Your task to perform on an android device: turn off data saver in the chrome app Image 0: 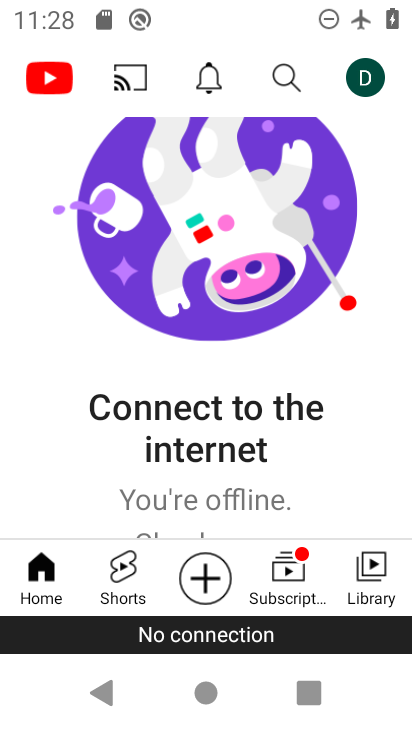
Step 0: drag from (263, 442) to (293, 267)
Your task to perform on an android device: turn off data saver in the chrome app Image 1: 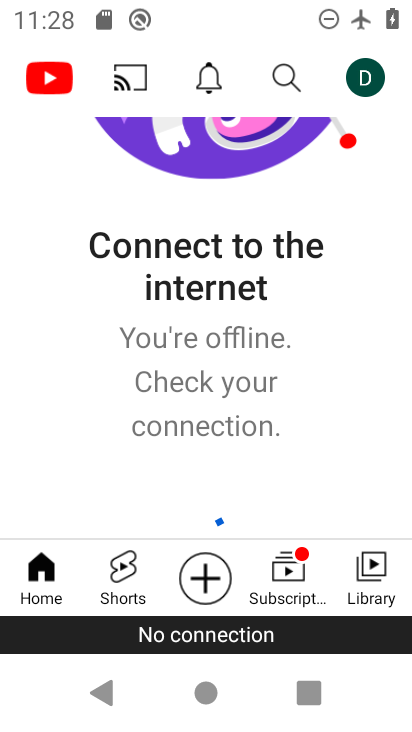
Step 1: click (311, 350)
Your task to perform on an android device: turn off data saver in the chrome app Image 2: 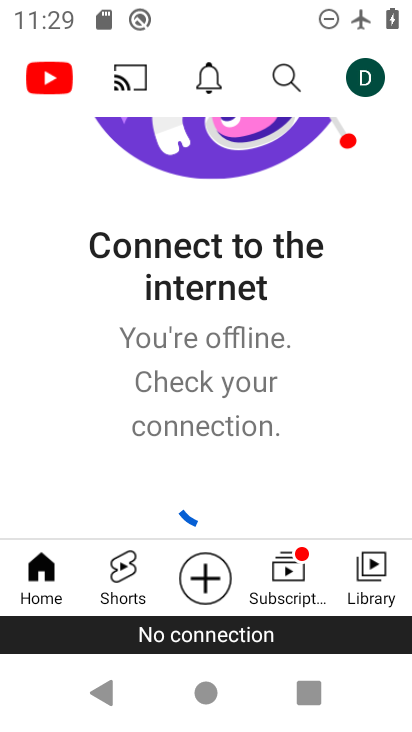
Step 2: press home button
Your task to perform on an android device: turn off data saver in the chrome app Image 3: 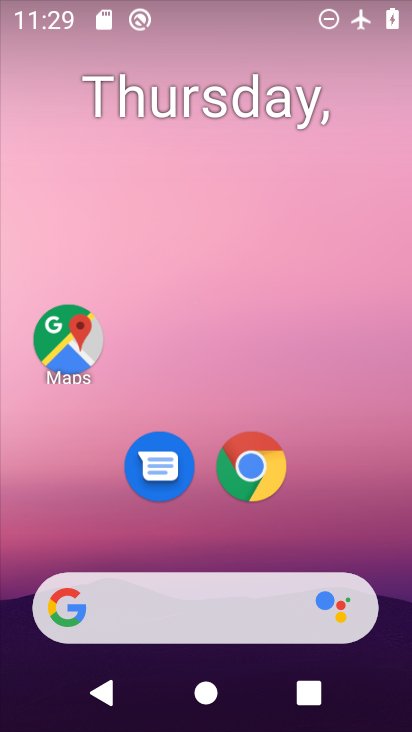
Step 3: drag from (173, 565) to (165, 0)
Your task to perform on an android device: turn off data saver in the chrome app Image 4: 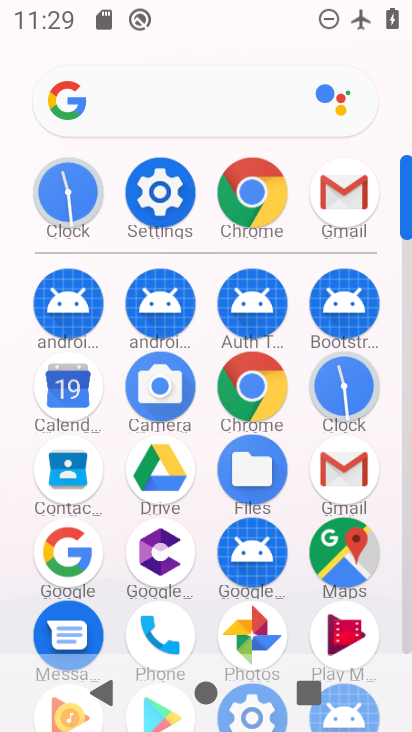
Step 4: click (246, 390)
Your task to perform on an android device: turn off data saver in the chrome app Image 5: 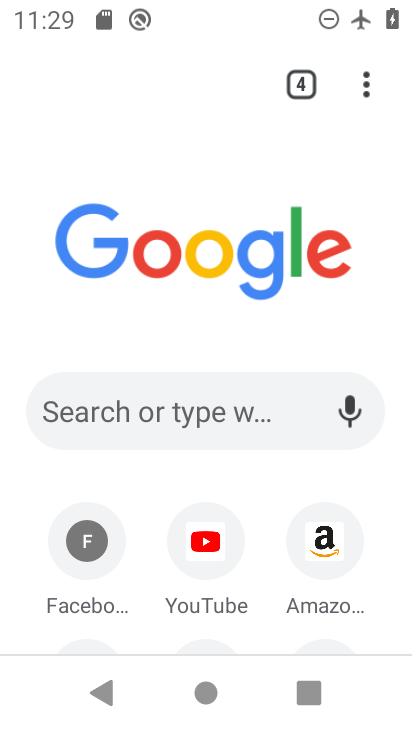
Step 5: drag from (369, 77) to (141, 508)
Your task to perform on an android device: turn off data saver in the chrome app Image 6: 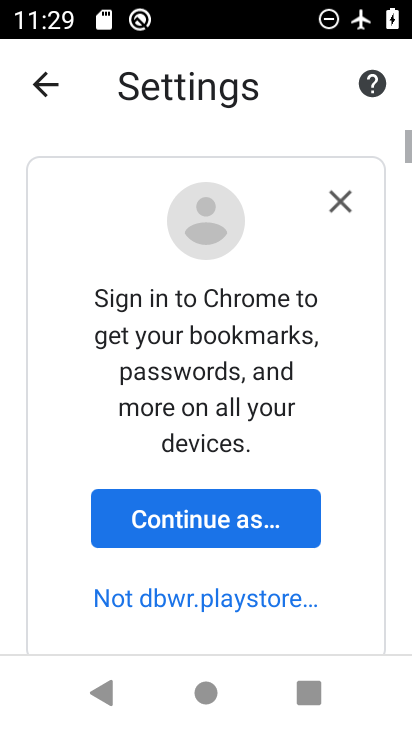
Step 6: drag from (176, 594) to (270, 154)
Your task to perform on an android device: turn off data saver in the chrome app Image 7: 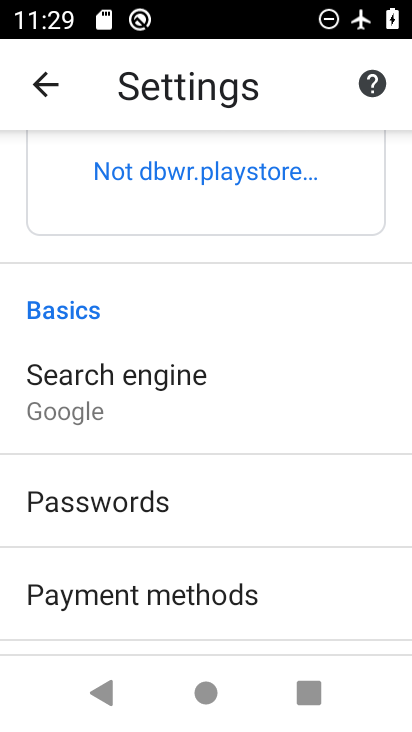
Step 7: drag from (186, 654) to (180, 244)
Your task to perform on an android device: turn off data saver in the chrome app Image 8: 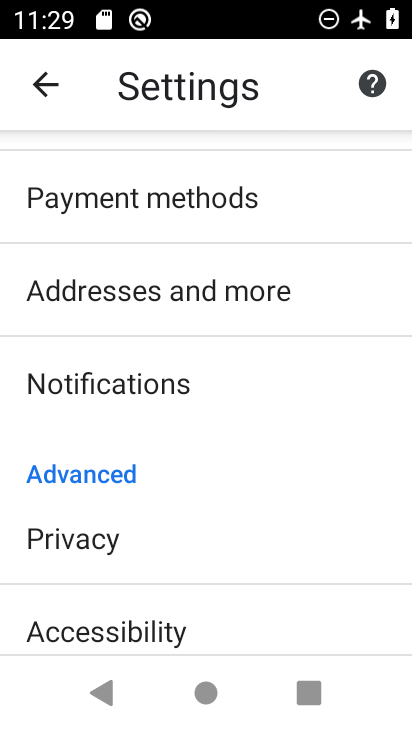
Step 8: drag from (224, 576) to (181, 294)
Your task to perform on an android device: turn off data saver in the chrome app Image 9: 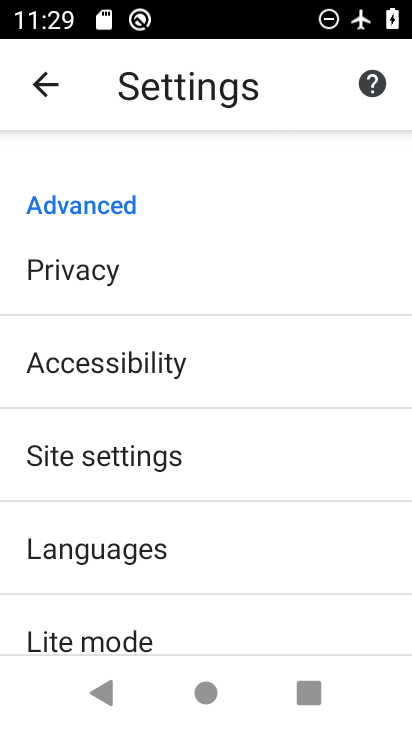
Step 9: click (187, 476)
Your task to perform on an android device: turn off data saver in the chrome app Image 10: 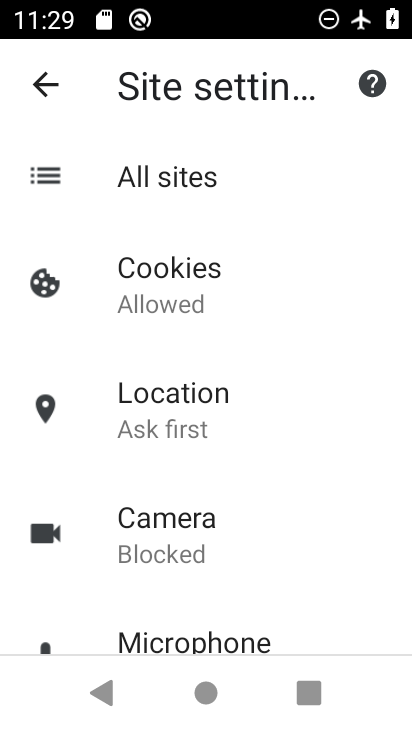
Step 10: press back button
Your task to perform on an android device: turn off data saver in the chrome app Image 11: 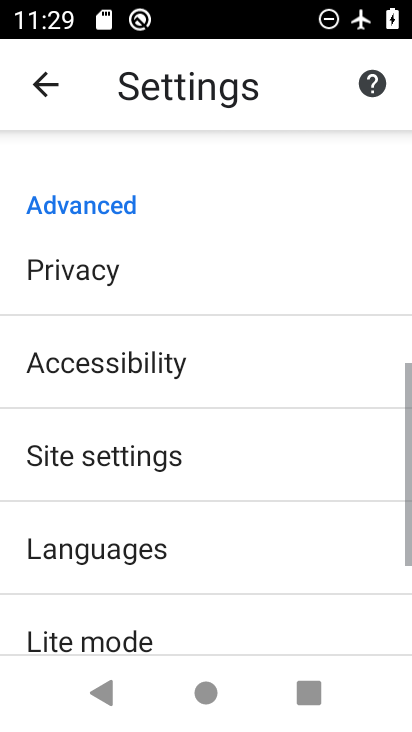
Step 11: drag from (230, 626) to (276, 398)
Your task to perform on an android device: turn off data saver in the chrome app Image 12: 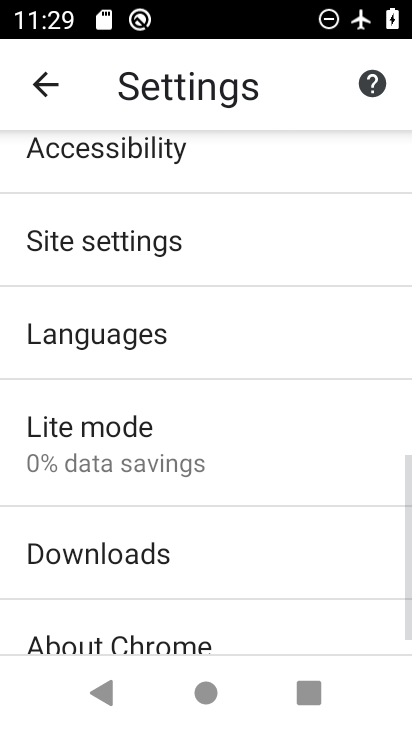
Step 12: click (243, 477)
Your task to perform on an android device: turn off data saver in the chrome app Image 13: 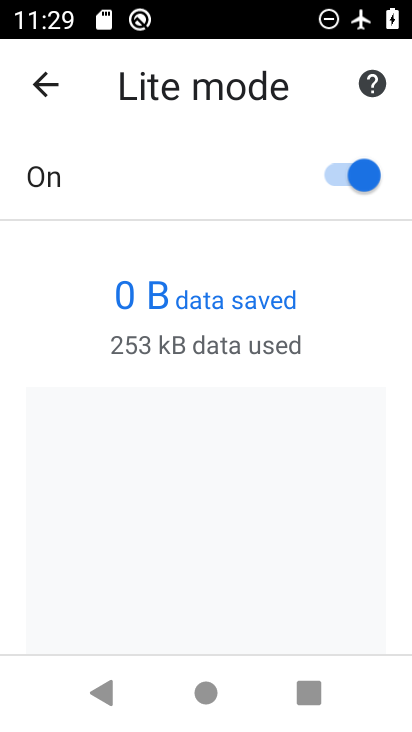
Step 13: task complete